Your task to perform on an android device: Do I have any events today? Image 0: 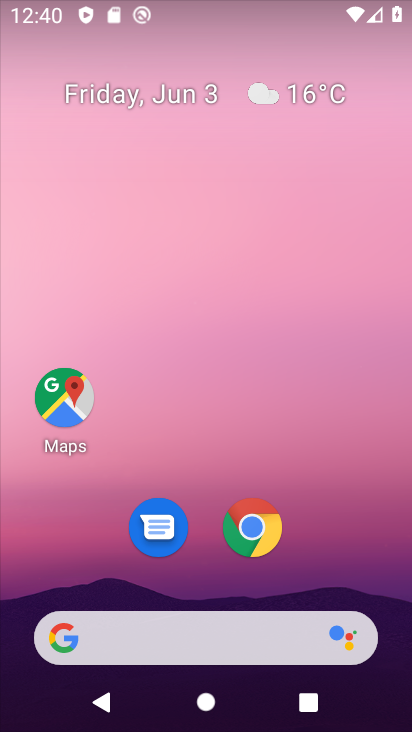
Step 0: press home button
Your task to perform on an android device: Do I have any events today? Image 1: 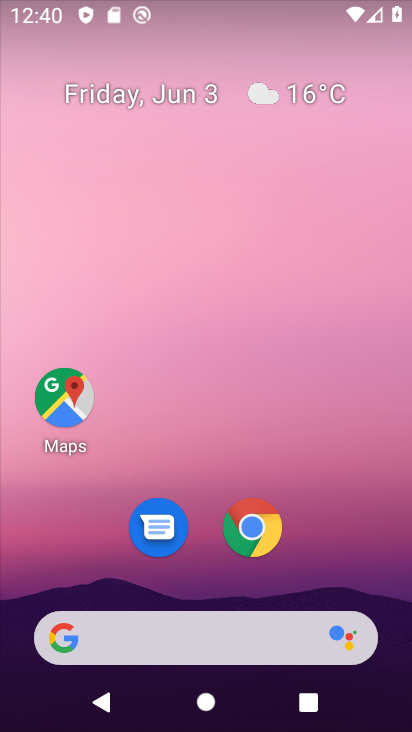
Step 1: drag from (357, 544) to (358, 182)
Your task to perform on an android device: Do I have any events today? Image 2: 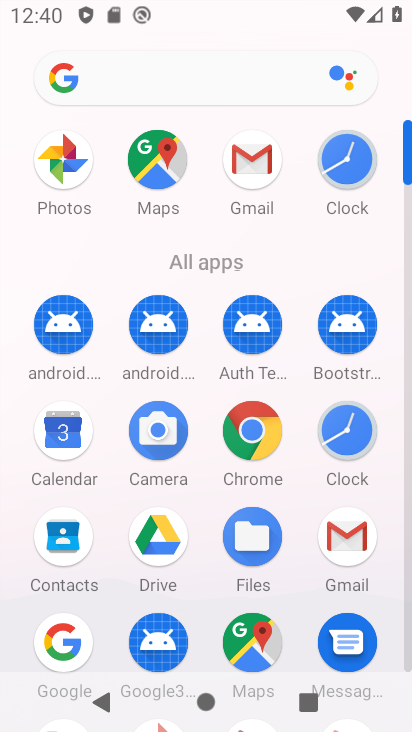
Step 2: click (71, 432)
Your task to perform on an android device: Do I have any events today? Image 3: 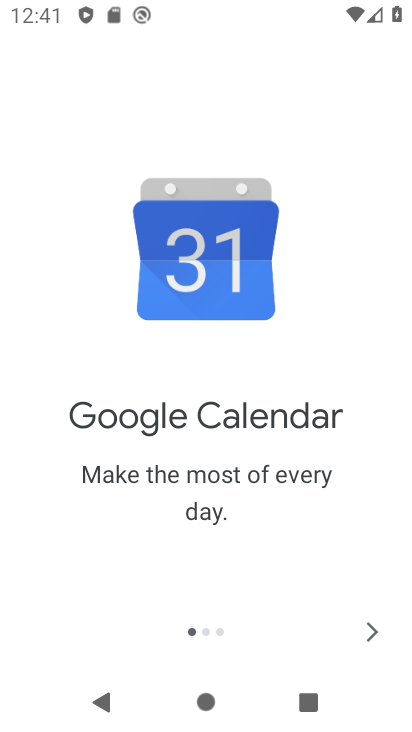
Step 3: click (374, 624)
Your task to perform on an android device: Do I have any events today? Image 4: 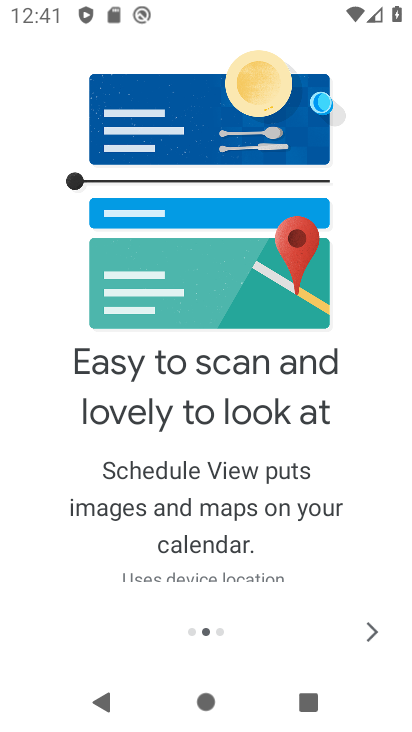
Step 4: click (374, 624)
Your task to perform on an android device: Do I have any events today? Image 5: 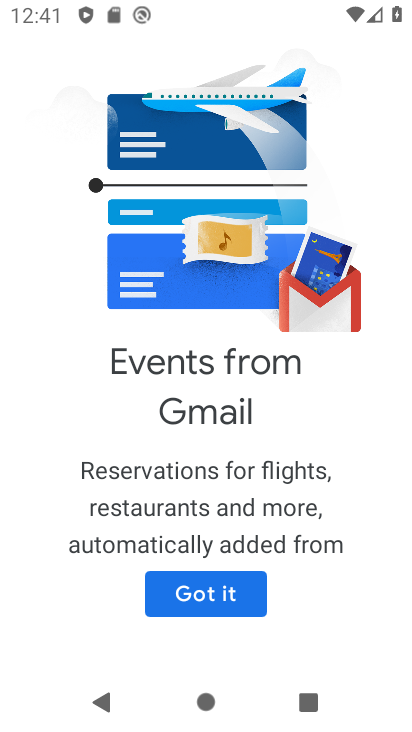
Step 5: click (238, 587)
Your task to perform on an android device: Do I have any events today? Image 6: 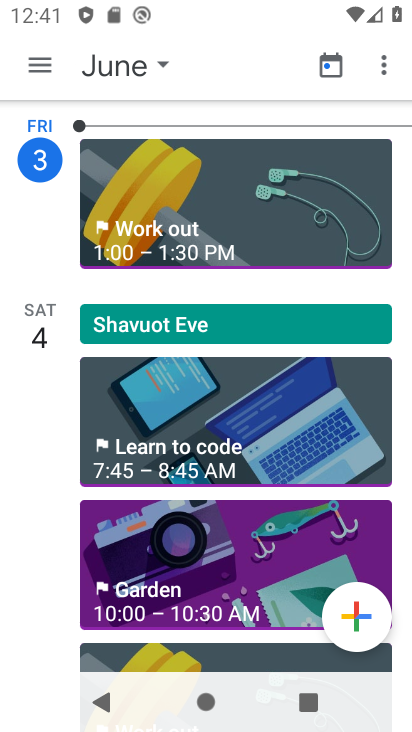
Step 6: click (28, 77)
Your task to perform on an android device: Do I have any events today? Image 7: 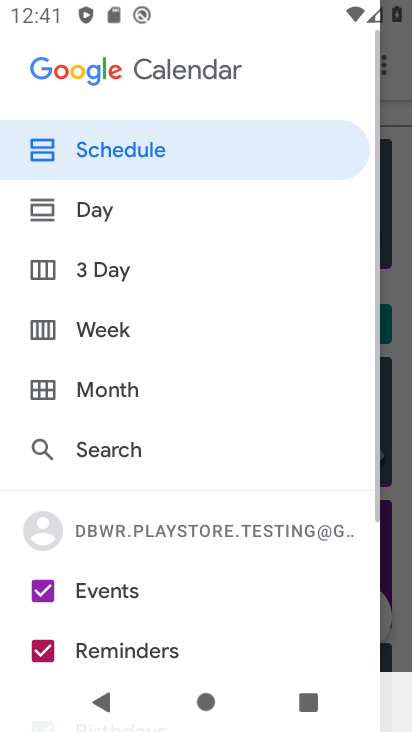
Step 7: click (266, 138)
Your task to perform on an android device: Do I have any events today? Image 8: 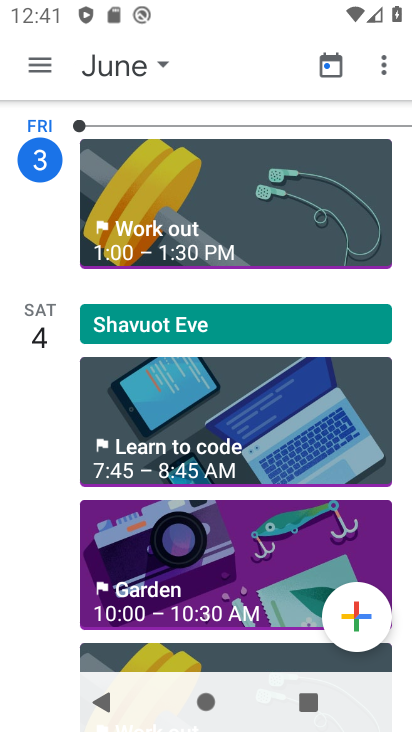
Step 8: task complete